Your task to perform on an android device: When is my next meeting? Image 0: 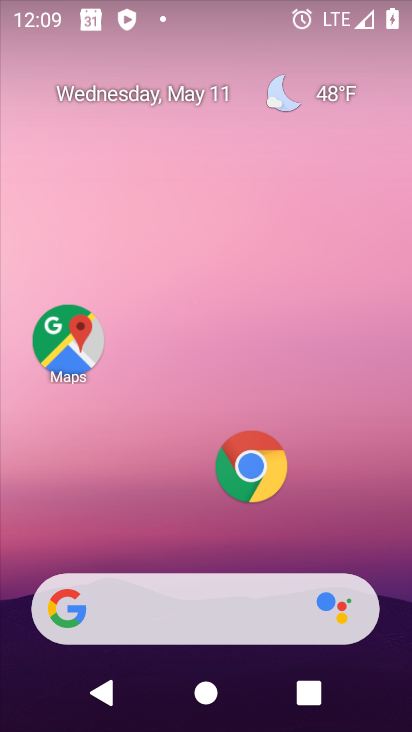
Step 0: drag from (147, 562) to (244, 22)
Your task to perform on an android device: When is my next meeting? Image 1: 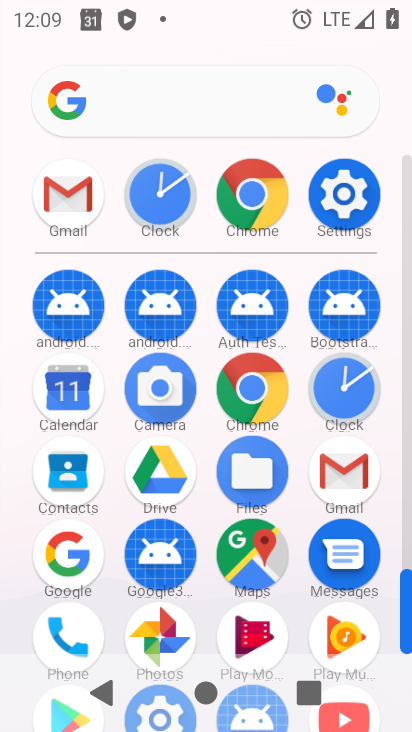
Step 1: click (70, 381)
Your task to perform on an android device: When is my next meeting? Image 2: 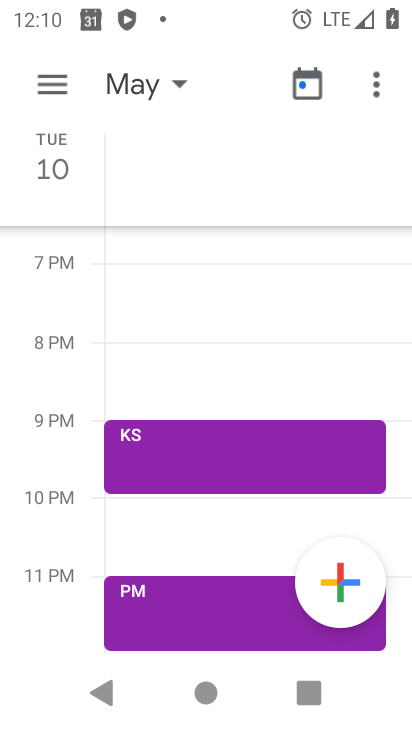
Step 2: click (44, 85)
Your task to perform on an android device: When is my next meeting? Image 3: 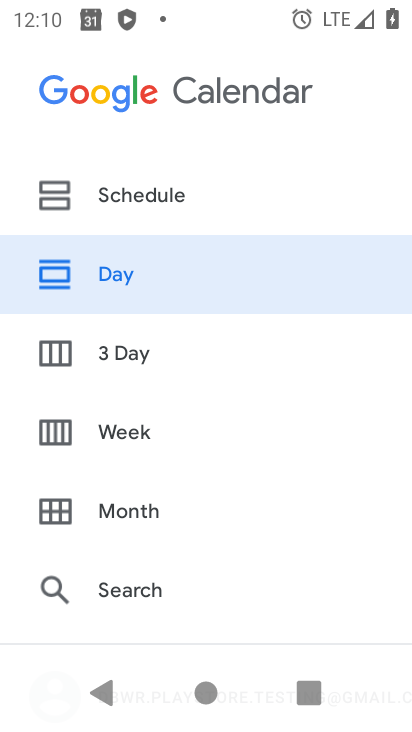
Step 3: click (133, 193)
Your task to perform on an android device: When is my next meeting? Image 4: 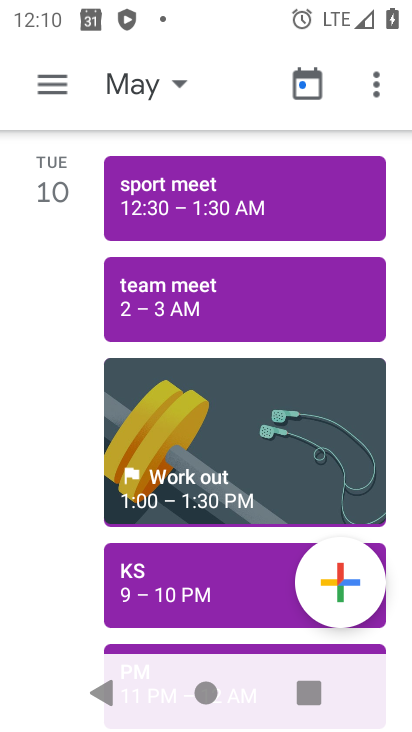
Step 4: task complete